Your task to perform on an android device: Open privacy settings Image 0: 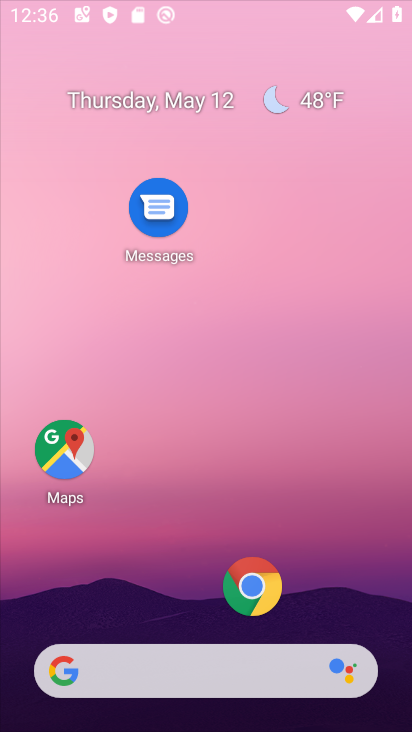
Step 0: drag from (121, 0) to (184, 28)
Your task to perform on an android device: Open privacy settings Image 1: 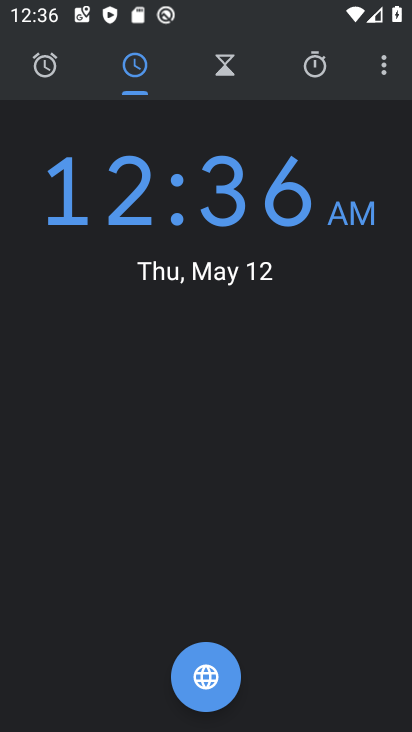
Step 1: press home button
Your task to perform on an android device: Open privacy settings Image 2: 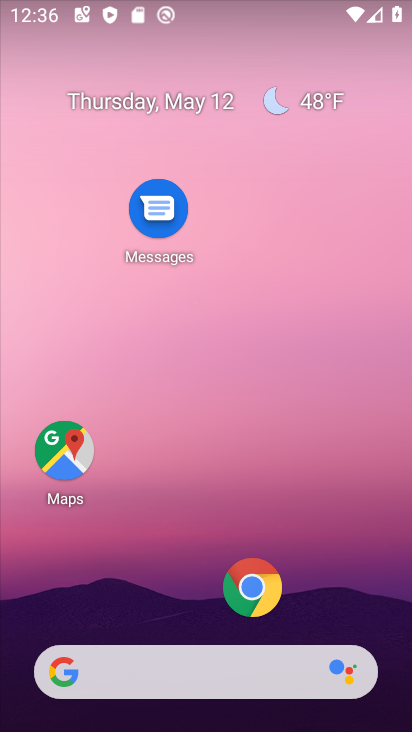
Step 2: drag from (184, 640) to (154, 104)
Your task to perform on an android device: Open privacy settings Image 3: 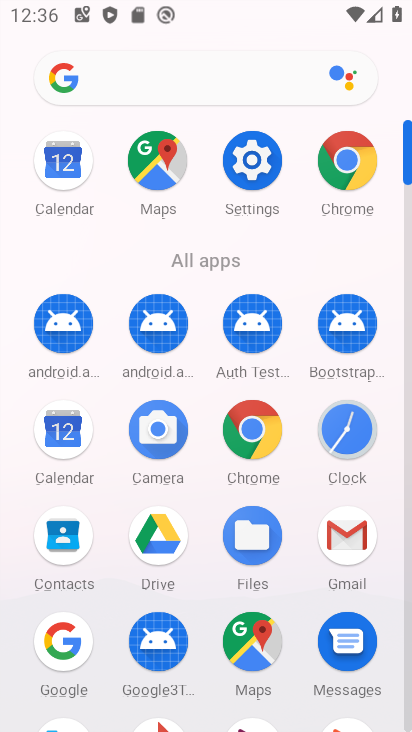
Step 3: click (251, 168)
Your task to perform on an android device: Open privacy settings Image 4: 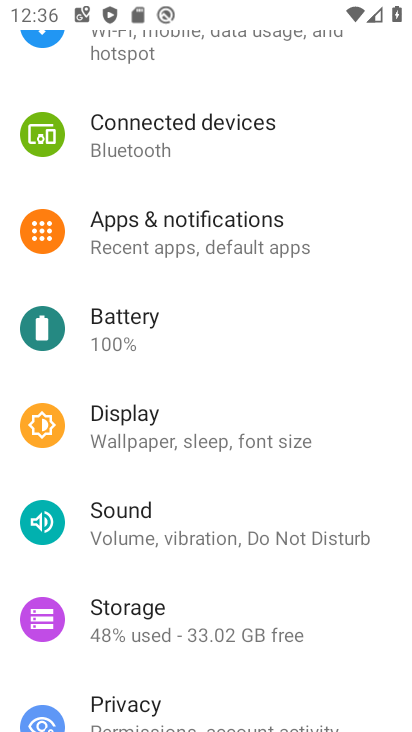
Step 4: click (144, 692)
Your task to perform on an android device: Open privacy settings Image 5: 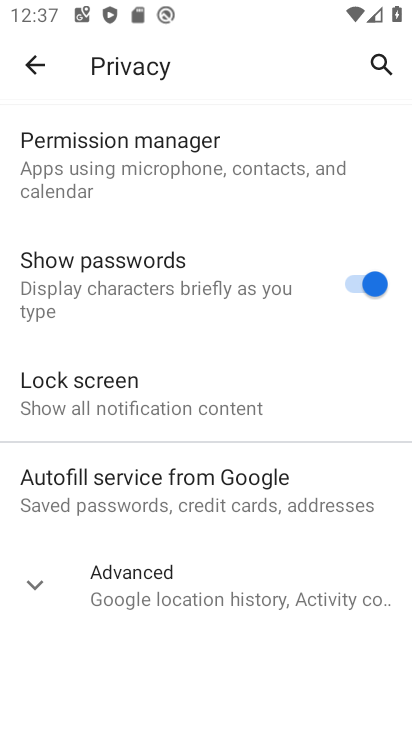
Step 5: task complete